Your task to perform on an android device: turn off notifications settings in the gmail app Image 0: 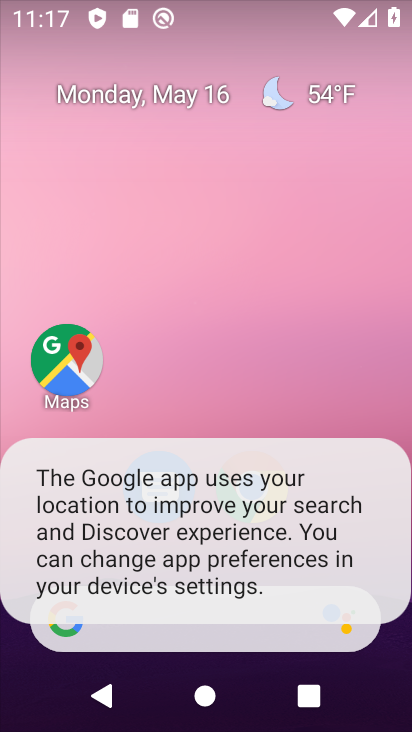
Step 0: drag from (248, 355) to (311, 8)
Your task to perform on an android device: turn off notifications settings in the gmail app Image 1: 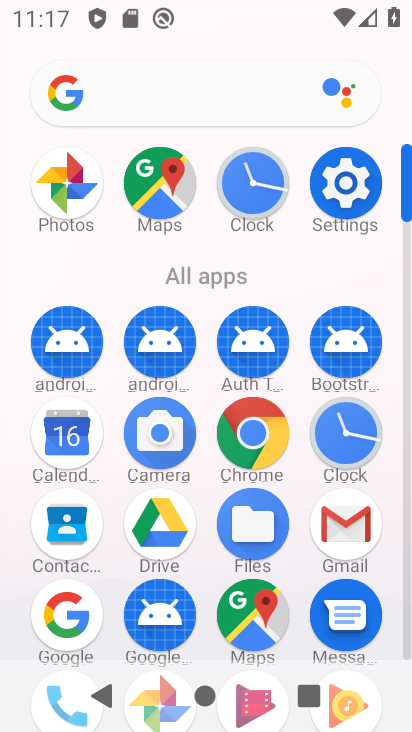
Step 1: click (330, 518)
Your task to perform on an android device: turn off notifications settings in the gmail app Image 2: 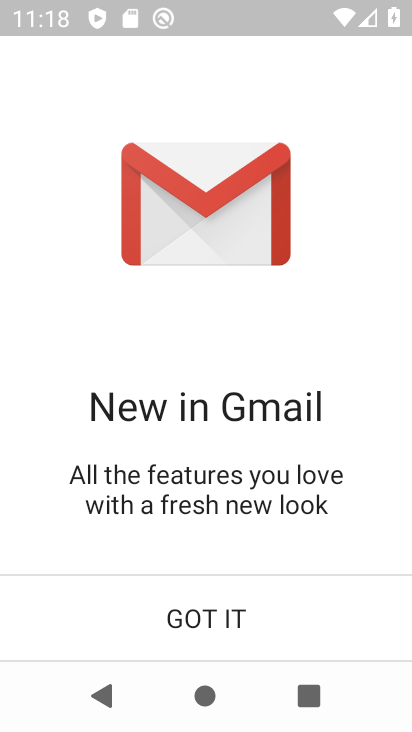
Step 2: click (180, 608)
Your task to perform on an android device: turn off notifications settings in the gmail app Image 3: 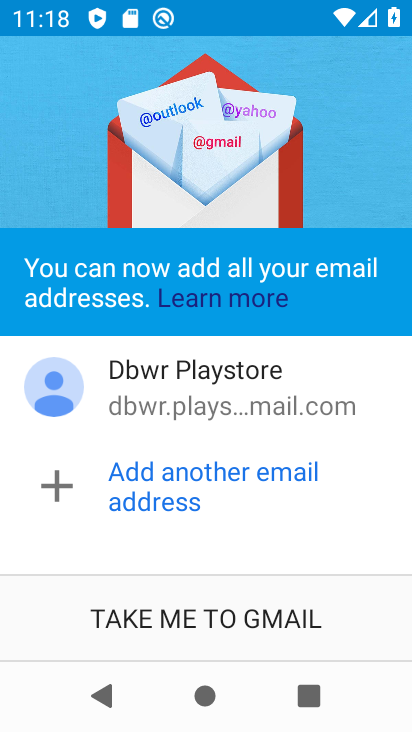
Step 3: click (172, 615)
Your task to perform on an android device: turn off notifications settings in the gmail app Image 4: 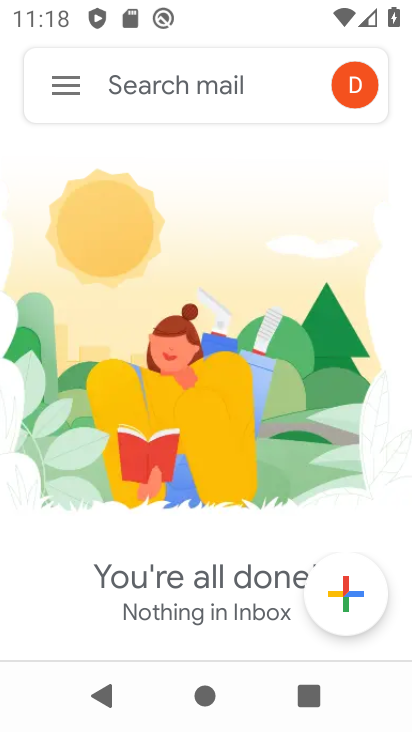
Step 4: click (63, 77)
Your task to perform on an android device: turn off notifications settings in the gmail app Image 5: 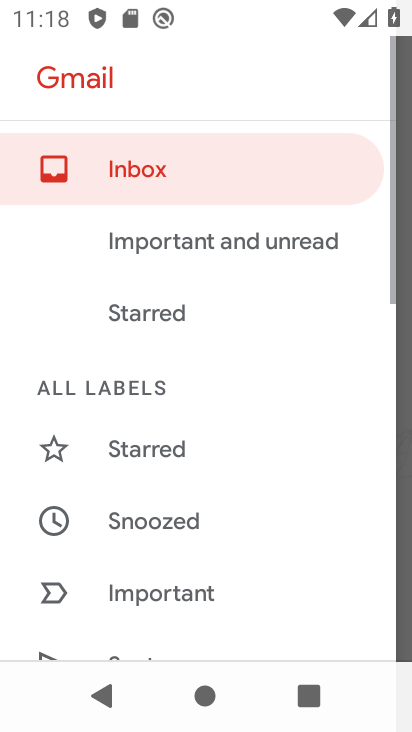
Step 5: drag from (189, 593) to (283, 82)
Your task to perform on an android device: turn off notifications settings in the gmail app Image 6: 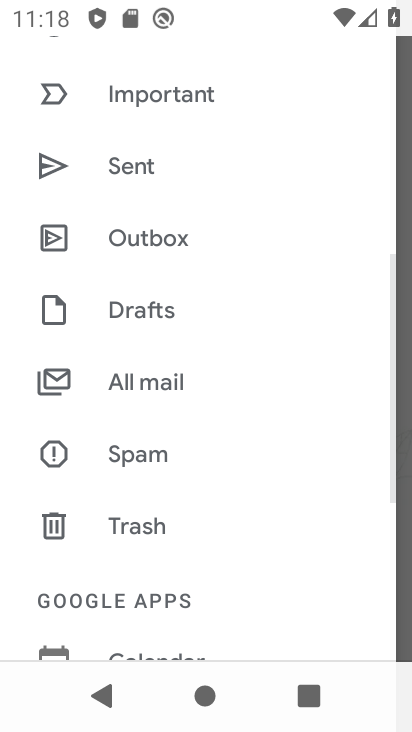
Step 6: drag from (177, 607) to (245, 94)
Your task to perform on an android device: turn off notifications settings in the gmail app Image 7: 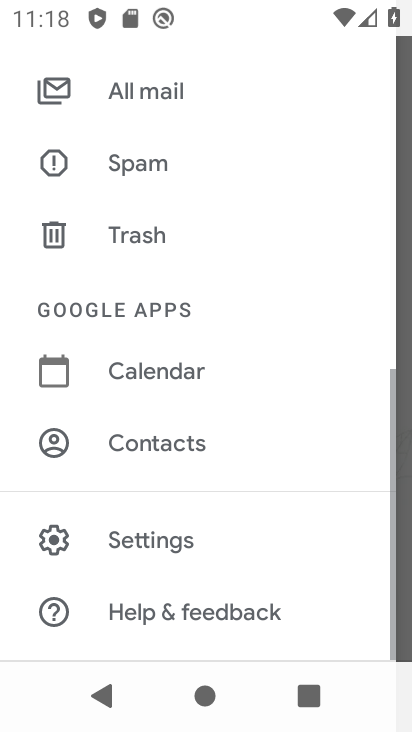
Step 7: click (153, 536)
Your task to perform on an android device: turn off notifications settings in the gmail app Image 8: 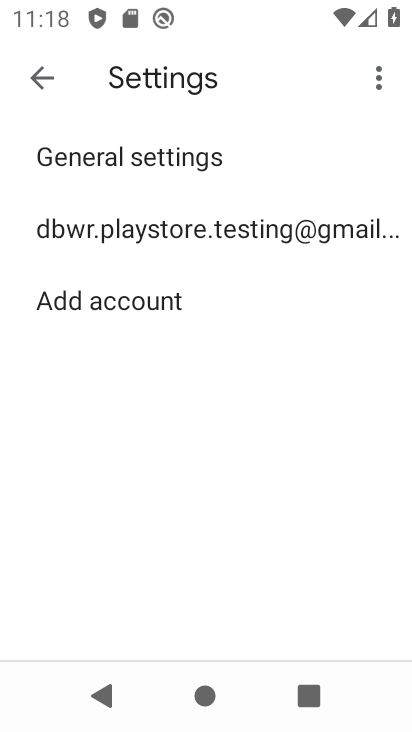
Step 8: click (162, 226)
Your task to perform on an android device: turn off notifications settings in the gmail app Image 9: 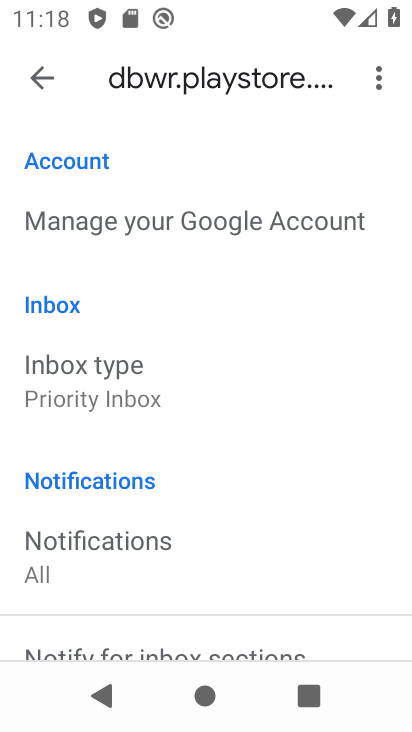
Step 9: drag from (148, 590) to (229, 89)
Your task to perform on an android device: turn off notifications settings in the gmail app Image 10: 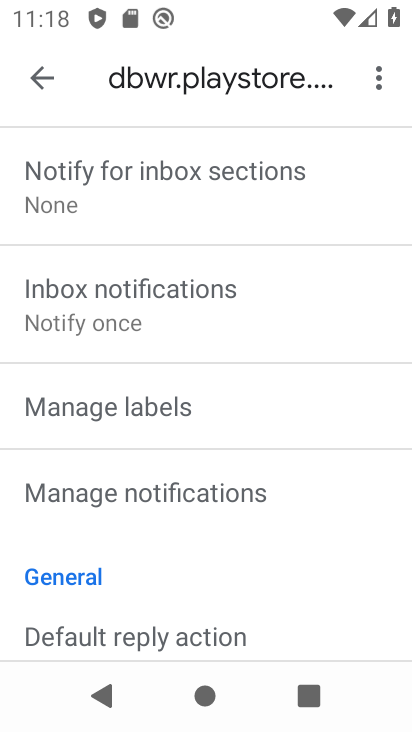
Step 10: click (138, 491)
Your task to perform on an android device: turn off notifications settings in the gmail app Image 11: 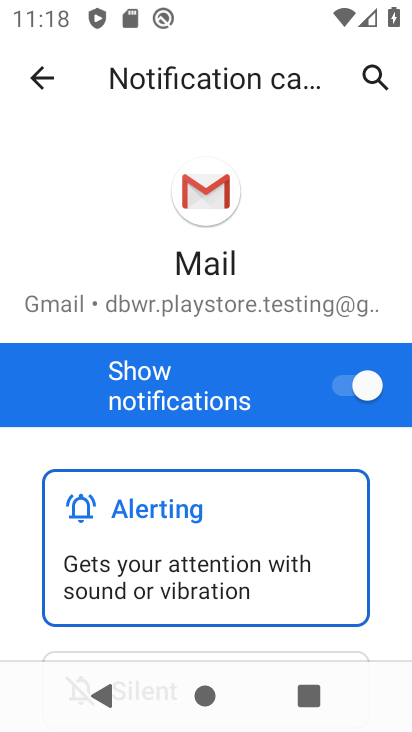
Step 11: click (361, 391)
Your task to perform on an android device: turn off notifications settings in the gmail app Image 12: 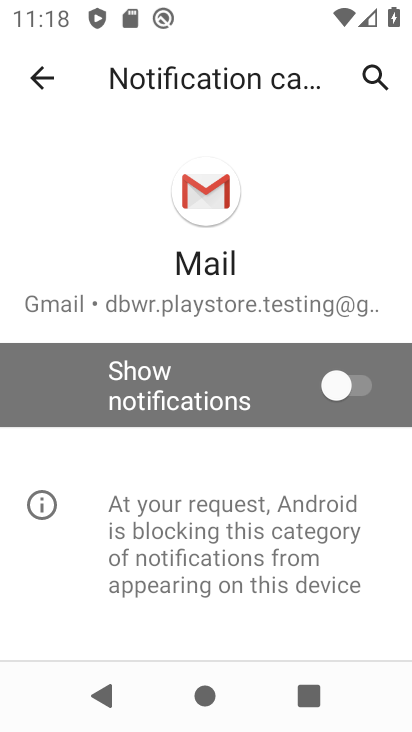
Step 12: task complete